Your task to perform on an android device: Open Amazon Image 0: 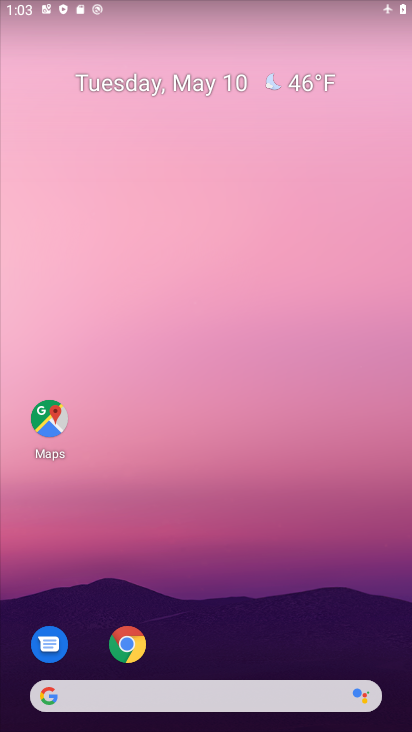
Step 0: drag from (239, 611) to (199, 144)
Your task to perform on an android device: Open Amazon Image 1: 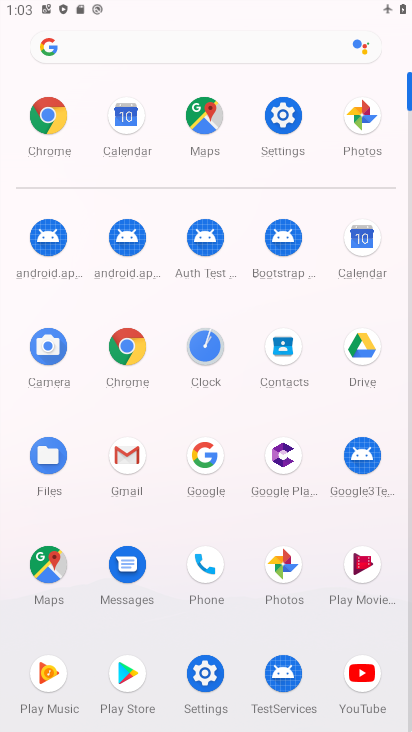
Step 1: click (138, 362)
Your task to perform on an android device: Open Amazon Image 2: 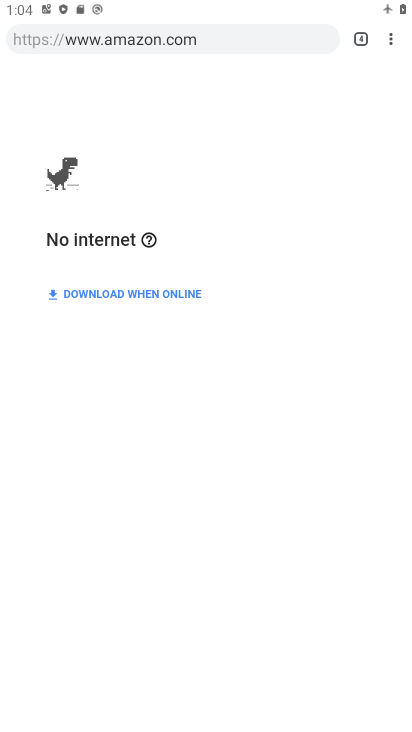
Step 2: task complete